Your task to perform on an android device: change the upload size in google photos Image 0: 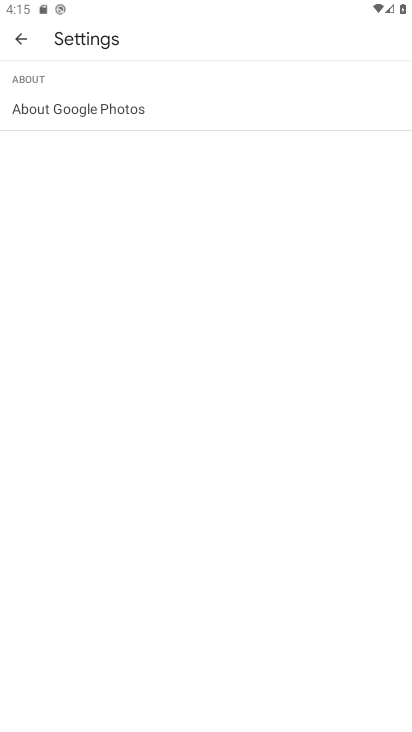
Step 0: press home button
Your task to perform on an android device: change the upload size in google photos Image 1: 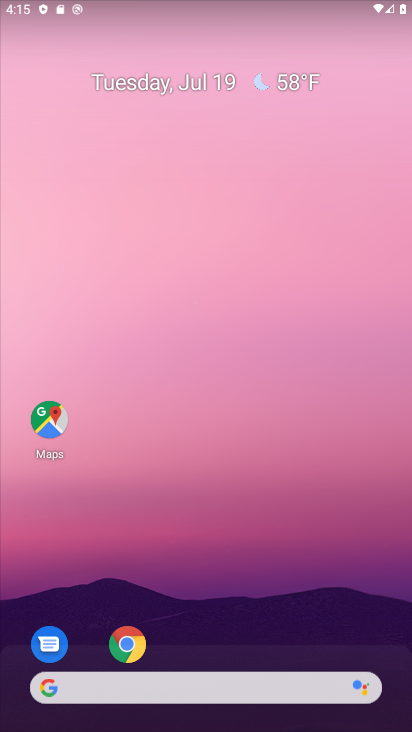
Step 1: drag from (242, 626) to (262, 241)
Your task to perform on an android device: change the upload size in google photos Image 2: 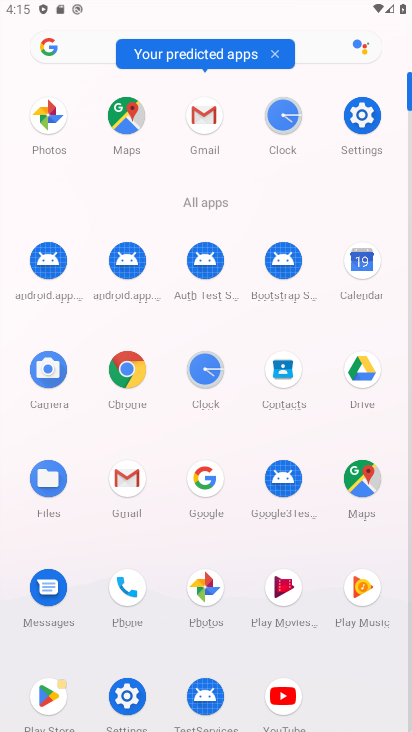
Step 2: click (206, 601)
Your task to perform on an android device: change the upload size in google photos Image 3: 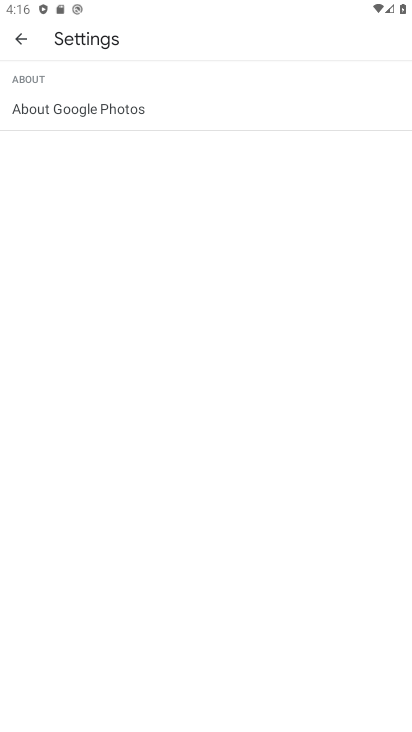
Step 3: press back button
Your task to perform on an android device: change the upload size in google photos Image 4: 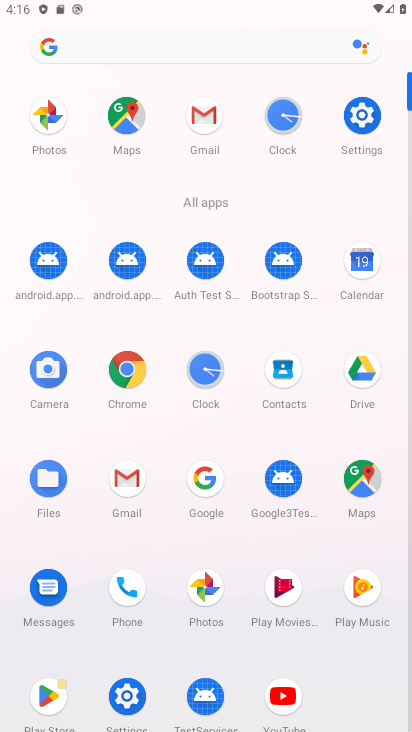
Step 4: click (207, 590)
Your task to perform on an android device: change the upload size in google photos Image 5: 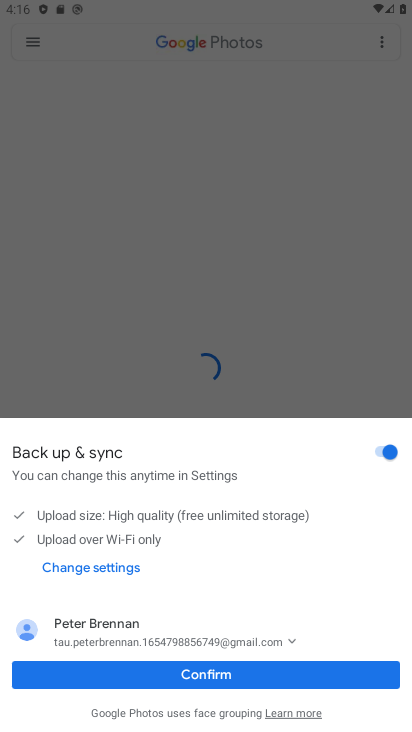
Step 5: click (229, 672)
Your task to perform on an android device: change the upload size in google photos Image 6: 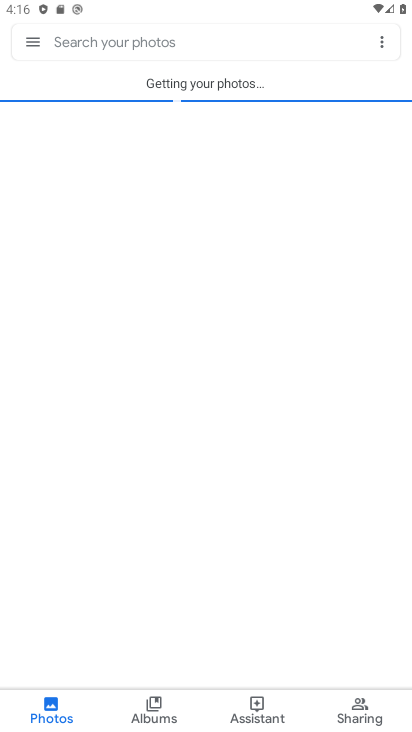
Step 6: click (32, 45)
Your task to perform on an android device: change the upload size in google photos Image 7: 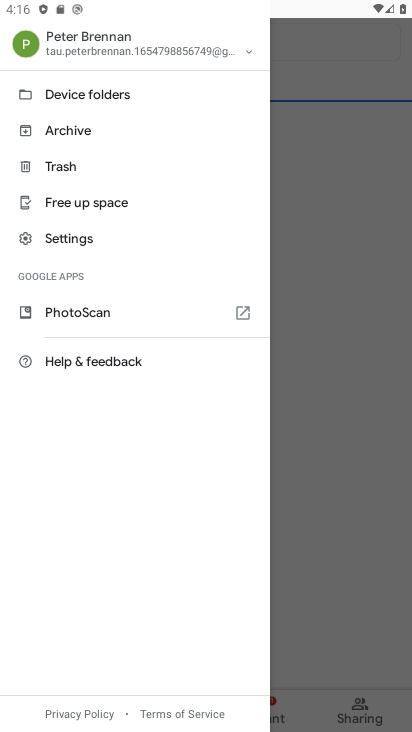
Step 7: click (102, 246)
Your task to perform on an android device: change the upload size in google photos Image 8: 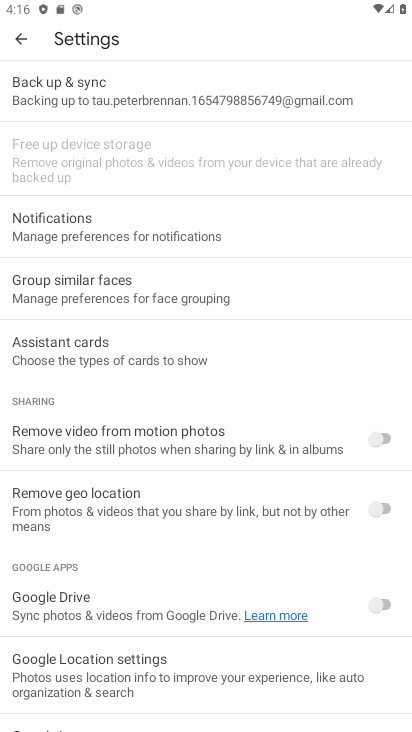
Step 8: click (127, 91)
Your task to perform on an android device: change the upload size in google photos Image 9: 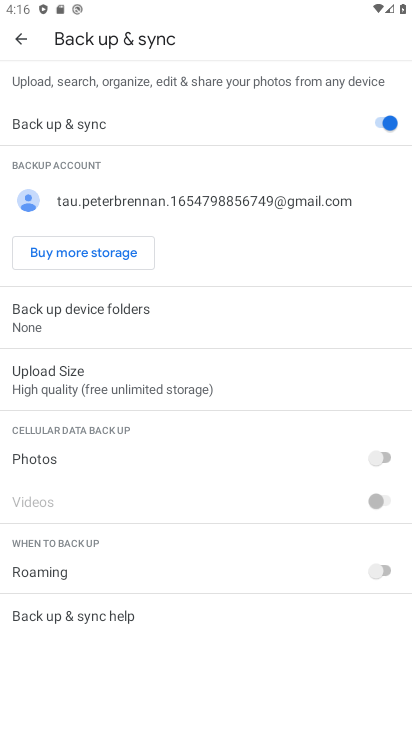
Step 9: click (110, 382)
Your task to perform on an android device: change the upload size in google photos Image 10: 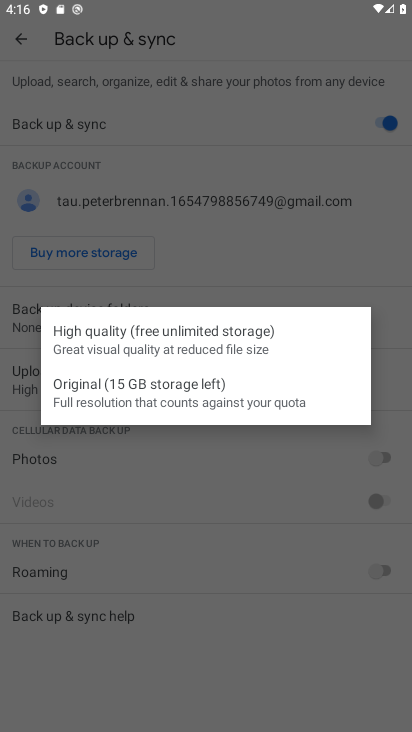
Step 10: click (121, 405)
Your task to perform on an android device: change the upload size in google photos Image 11: 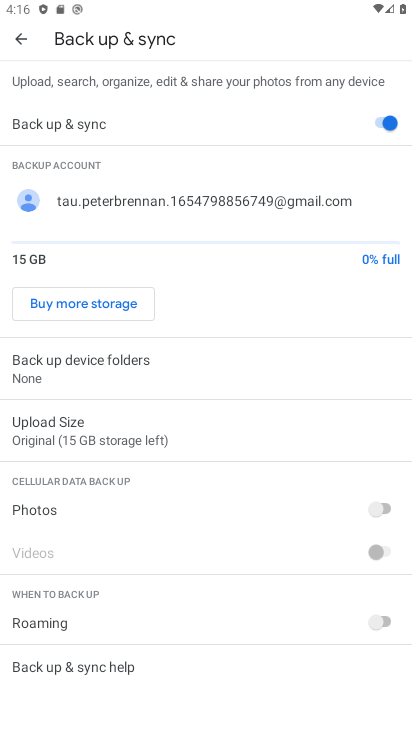
Step 11: task complete